Your task to perform on an android device: Show me popular videos on Youtube Image 0: 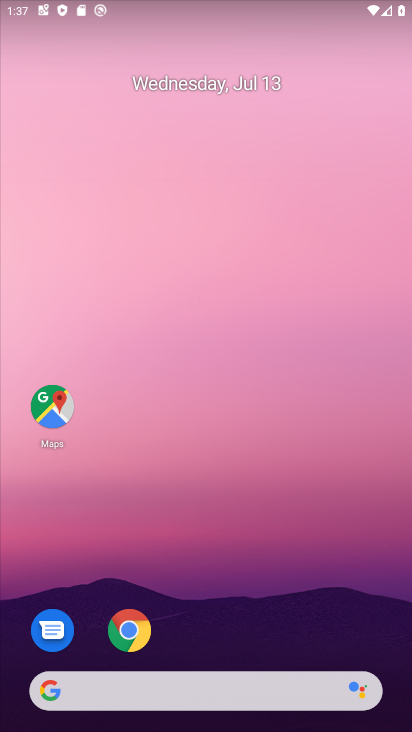
Step 0: drag from (293, 616) to (316, 167)
Your task to perform on an android device: Show me popular videos on Youtube Image 1: 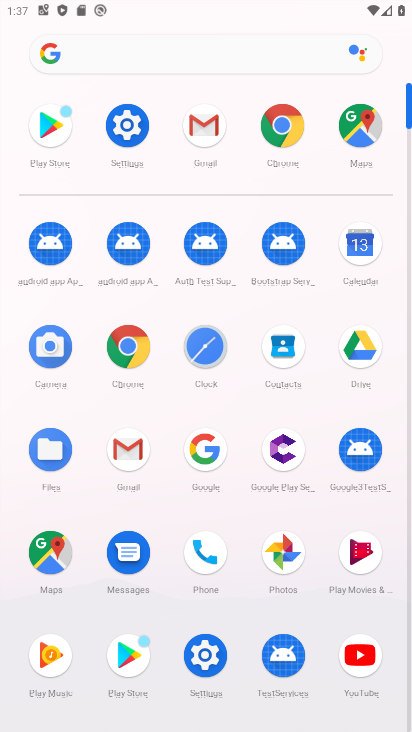
Step 1: click (361, 655)
Your task to perform on an android device: Show me popular videos on Youtube Image 2: 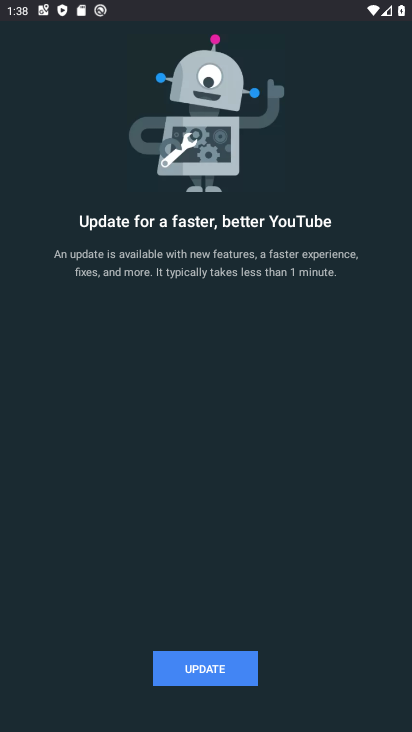
Step 2: click (227, 667)
Your task to perform on an android device: Show me popular videos on Youtube Image 3: 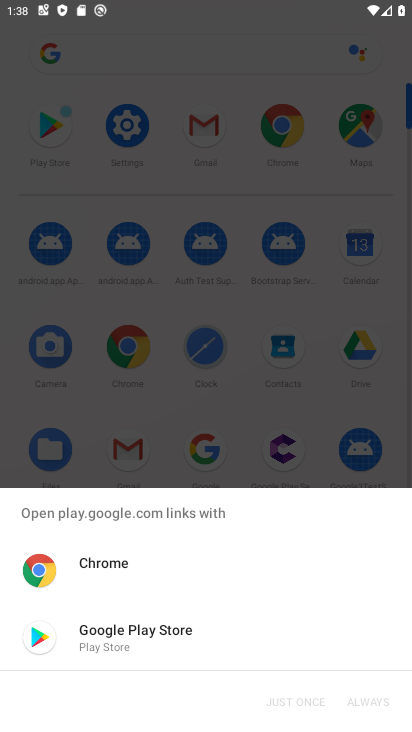
Step 3: click (173, 631)
Your task to perform on an android device: Show me popular videos on Youtube Image 4: 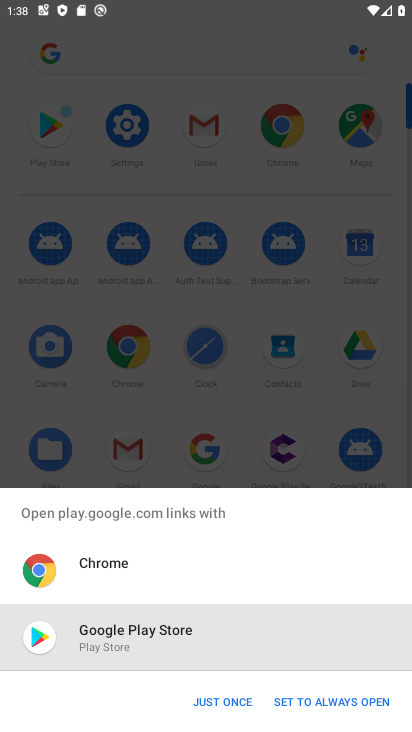
Step 4: click (212, 705)
Your task to perform on an android device: Show me popular videos on Youtube Image 5: 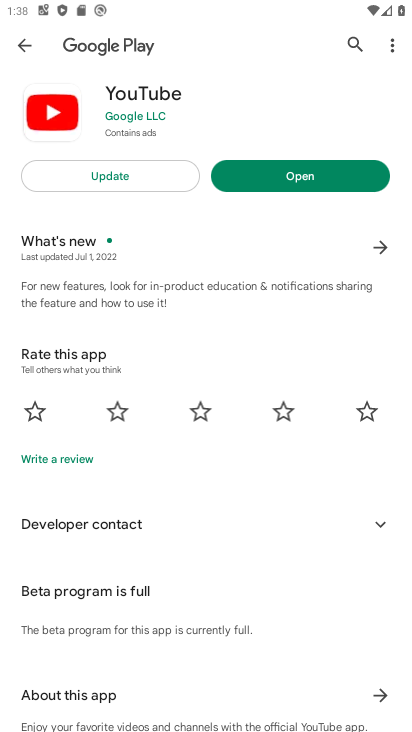
Step 5: click (118, 177)
Your task to perform on an android device: Show me popular videos on Youtube Image 6: 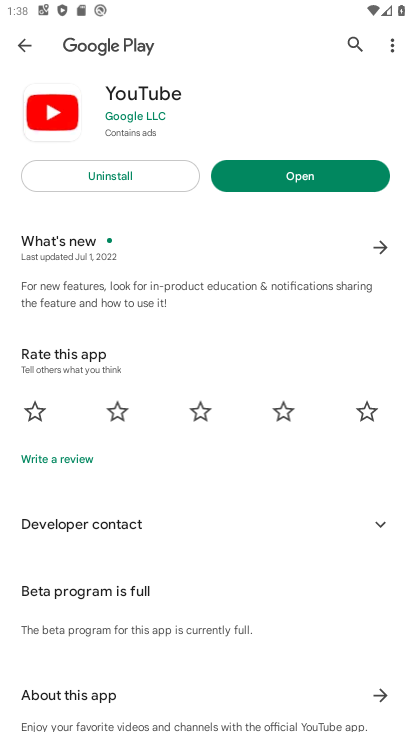
Step 6: click (309, 173)
Your task to perform on an android device: Show me popular videos on Youtube Image 7: 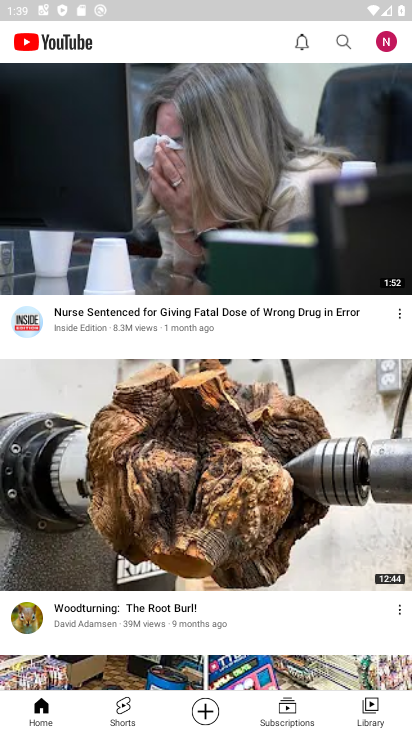
Step 7: task complete